Your task to perform on an android device: turn pop-ups on in chrome Image 0: 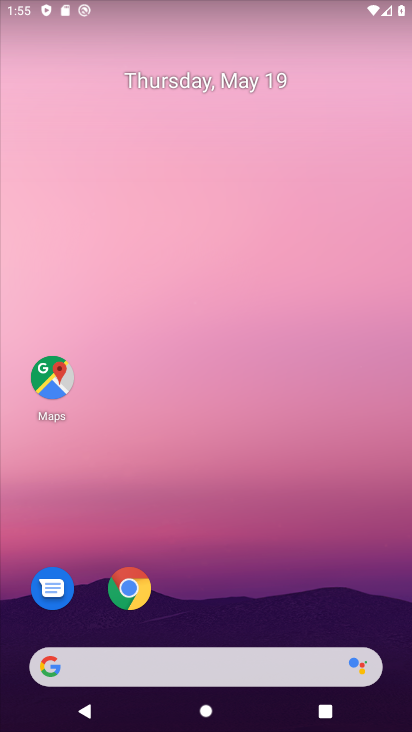
Step 0: click (133, 589)
Your task to perform on an android device: turn pop-ups on in chrome Image 1: 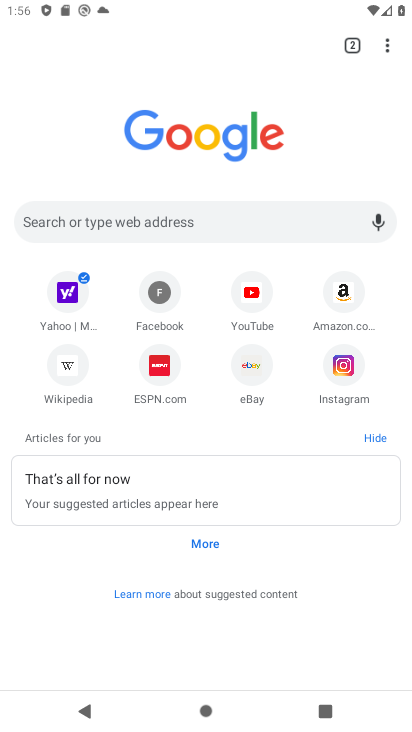
Step 1: drag from (388, 38) to (237, 377)
Your task to perform on an android device: turn pop-ups on in chrome Image 2: 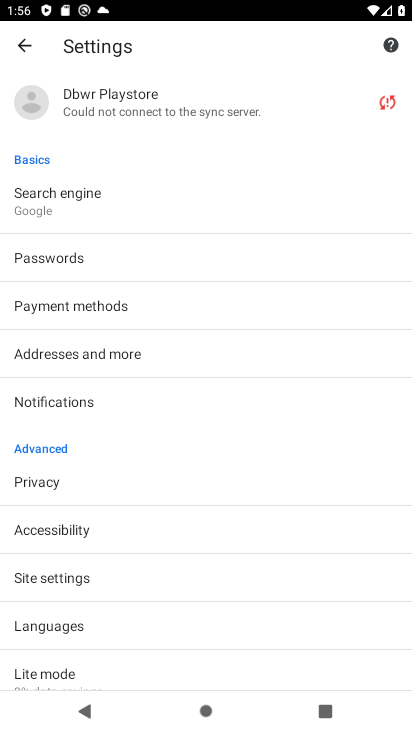
Step 2: click (63, 581)
Your task to perform on an android device: turn pop-ups on in chrome Image 3: 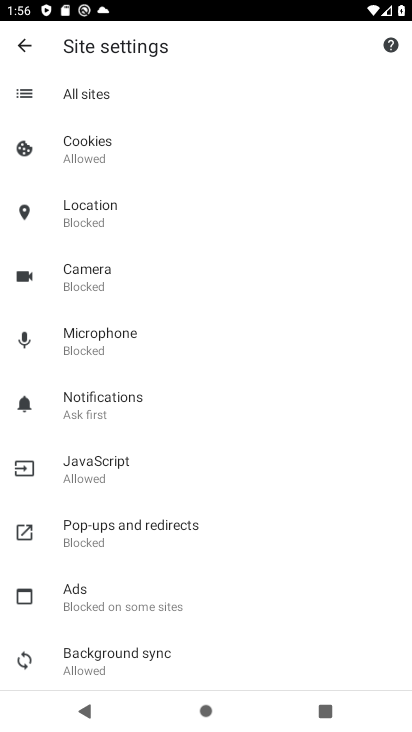
Step 3: click (133, 526)
Your task to perform on an android device: turn pop-ups on in chrome Image 4: 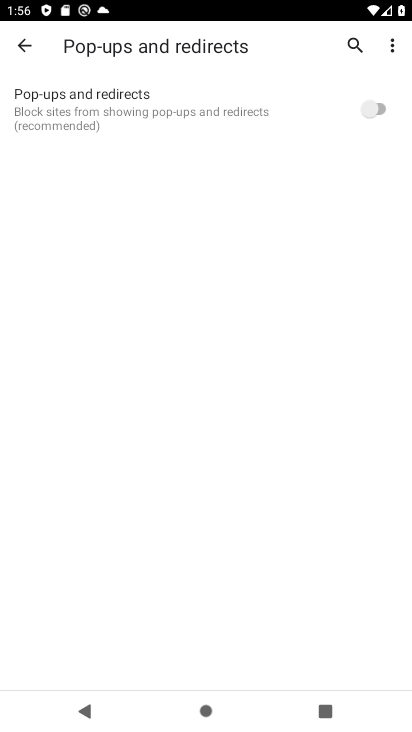
Step 4: click (364, 117)
Your task to perform on an android device: turn pop-ups on in chrome Image 5: 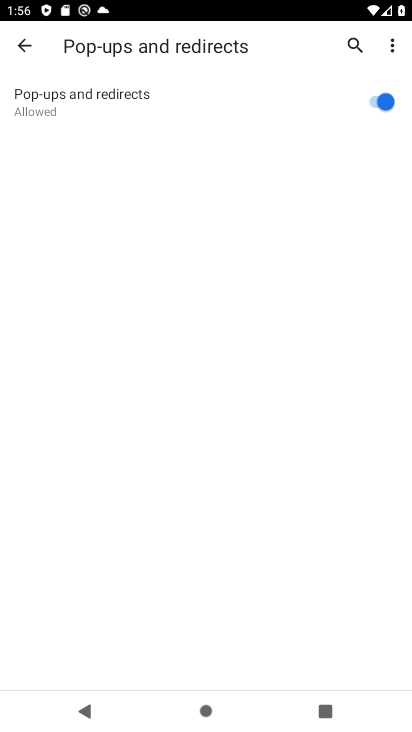
Step 5: task complete